Your task to perform on an android device: Open Google Maps Image 0: 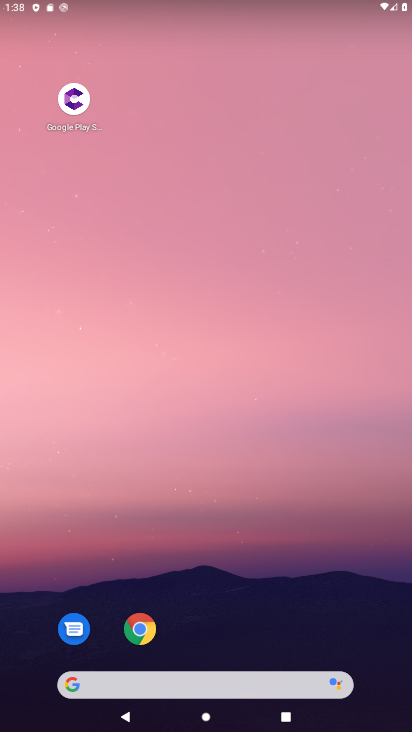
Step 0: drag from (238, 603) to (238, 124)
Your task to perform on an android device: Open Google Maps Image 1: 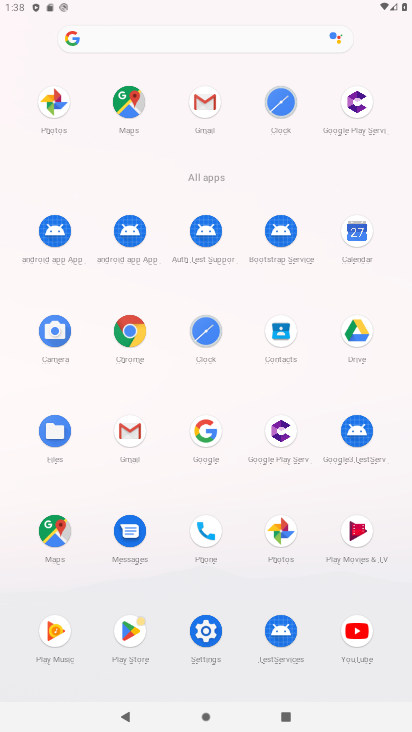
Step 1: click (63, 528)
Your task to perform on an android device: Open Google Maps Image 2: 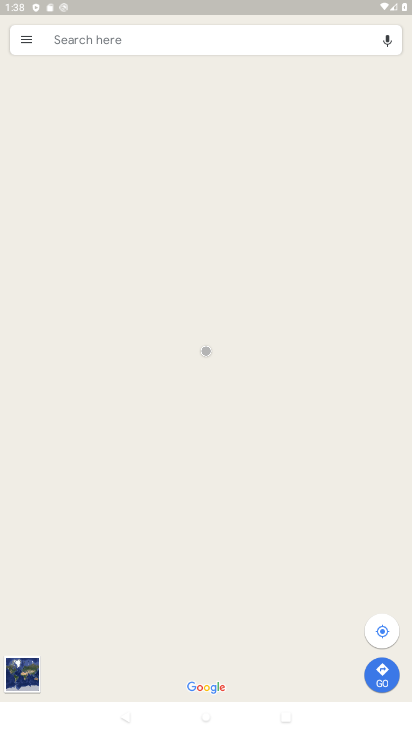
Step 2: task complete